Your task to perform on an android device: visit the assistant section in the google photos Image 0: 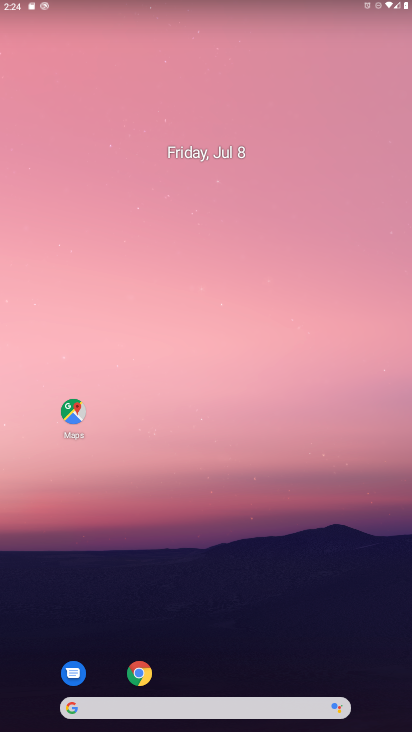
Step 0: click (136, 674)
Your task to perform on an android device: visit the assistant section in the google photos Image 1: 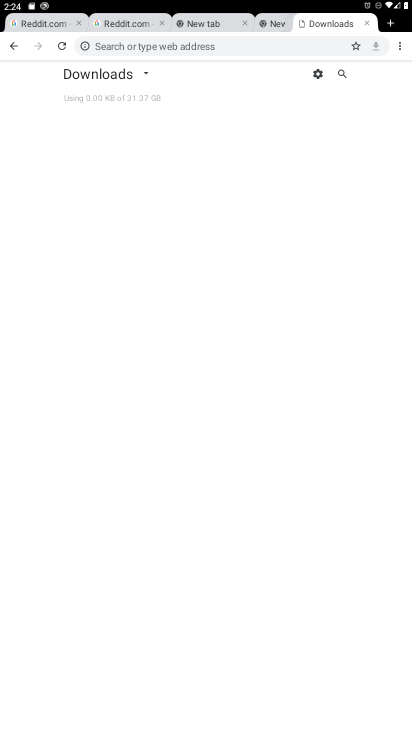
Step 1: press home button
Your task to perform on an android device: visit the assistant section in the google photos Image 2: 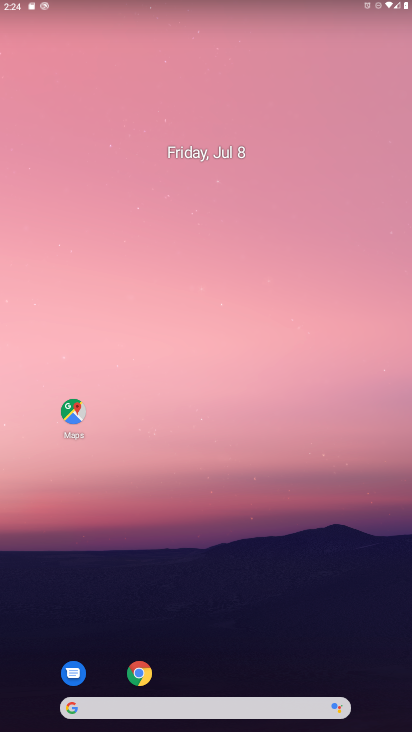
Step 2: drag from (384, 714) to (316, 112)
Your task to perform on an android device: visit the assistant section in the google photos Image 3: 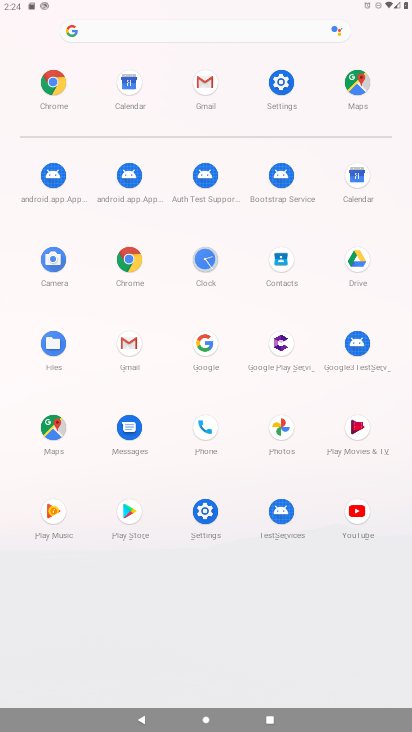
Step 3: click (279, 422)
Your task to perform on an android device: visit the assistant section in the google photos Image 4: 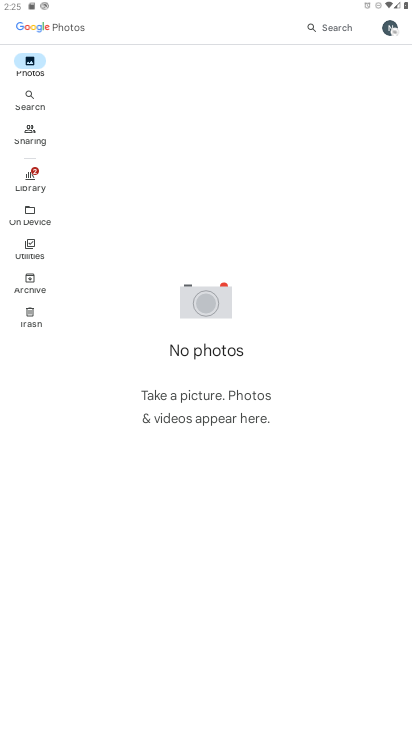
Step 4: press back button
Your task to perform on an android device: visit the assistant section in the google photos Image 5: 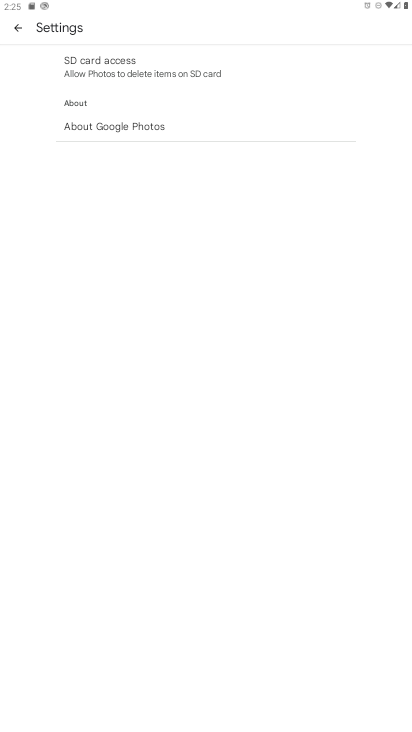
Step 5: press back button
Your task to perform on an android device: visit the assistant section in the google photos Image 6: 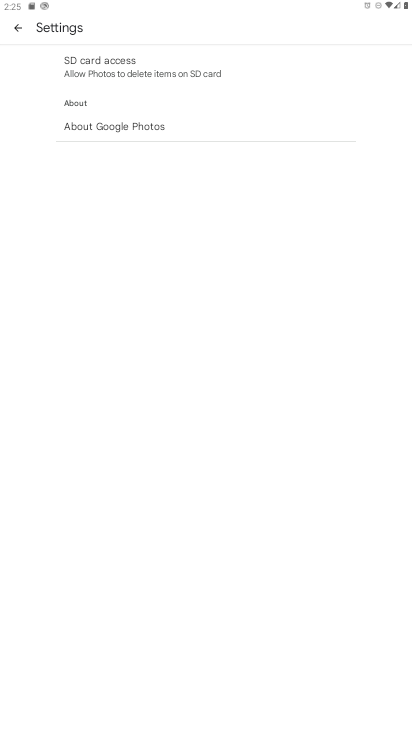
Step 6: press back button
Your task to perform on an android device: visit the assistant section in the google photos Image 7: 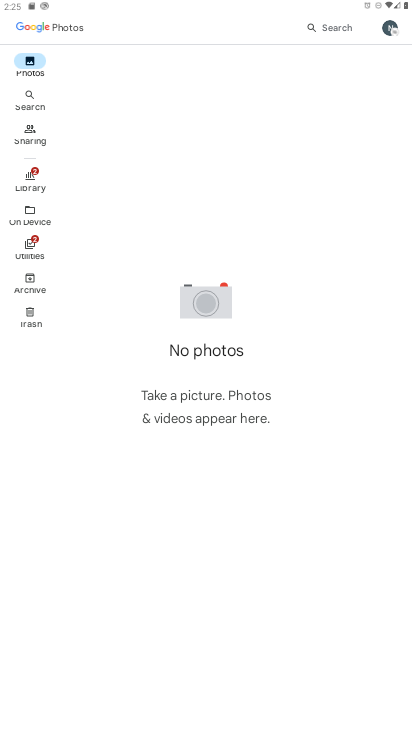
Step 7: press back button
Your task to perform on an android device: visit the assistant section in the google photos Image 8: 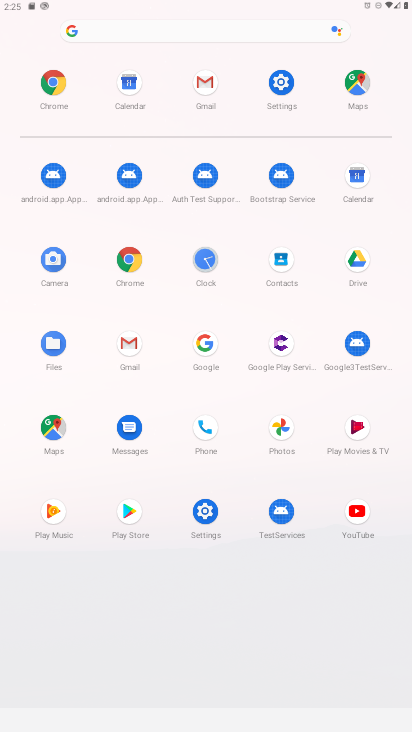
Step 8: click (279, 419)
Your task to perform on an android device: visit the assistant section in the google photos Image 9: 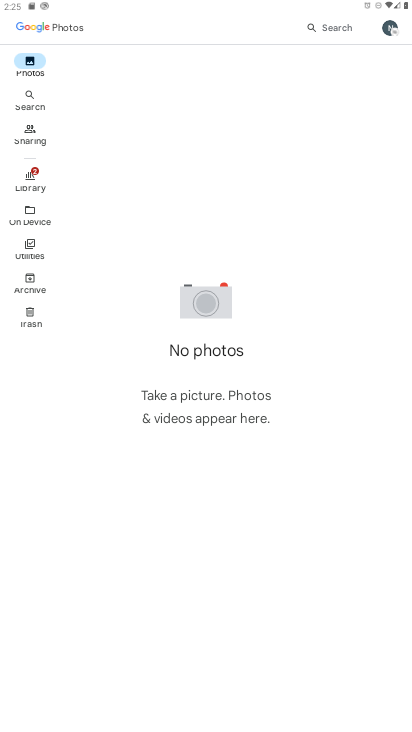
Step 9: task complete